Your task to perform on an android device: all mails in gmail Image 0: 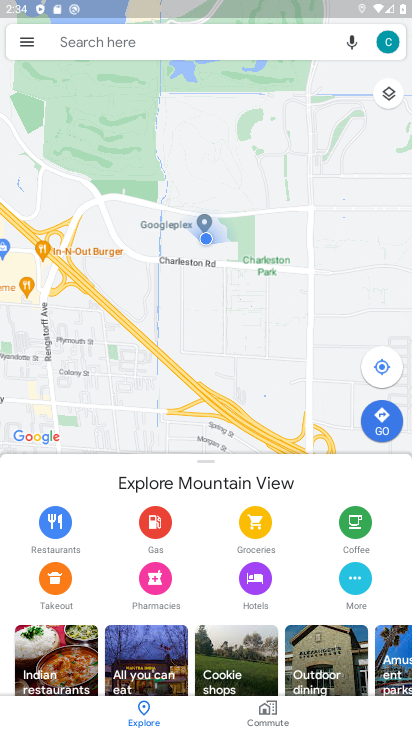
Step 0: press home button
Your task to perform on an android device: all mails in gmail Image 1: 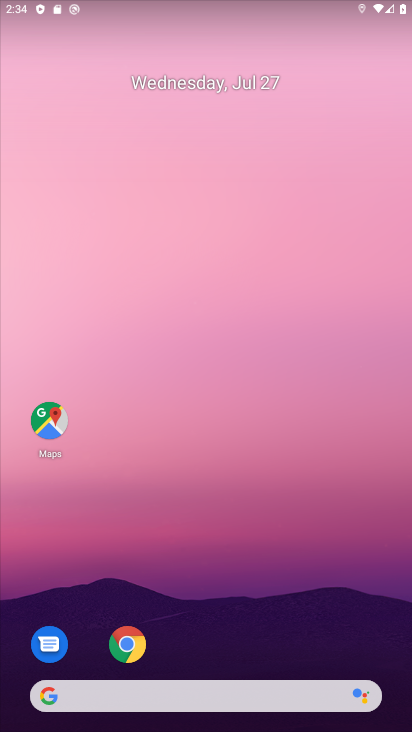
Step 1: drag from (209, 639) to (278, 0)
Your task to perform on an android device: all mails in gmail Image 2: 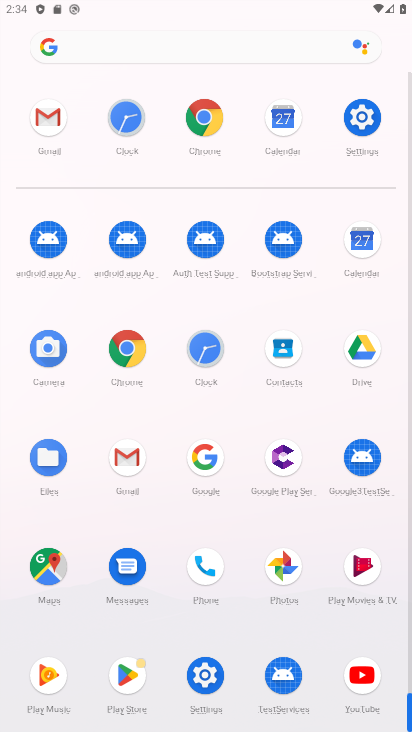
Step 2: click (130, 466)
Your task to perform on an android device: all mails in gmail Image 3: 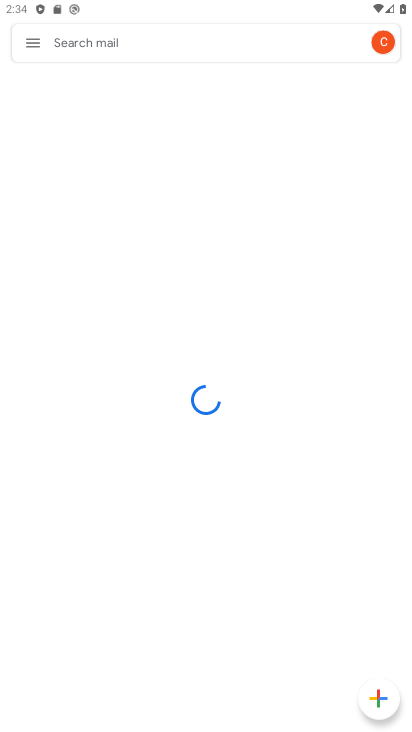
Step 3: click (29, 44)
Your task to perform on an android device: all mails in gmail Image 4: 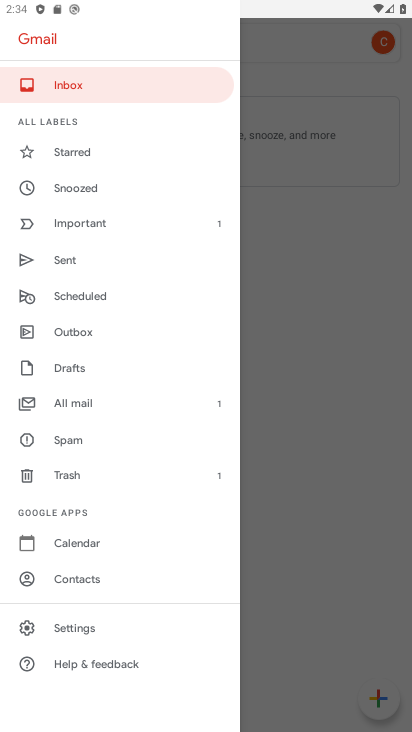
Step 4: click (84, 402)
Your task to perform on an android device: all mails in gmail Image 5: 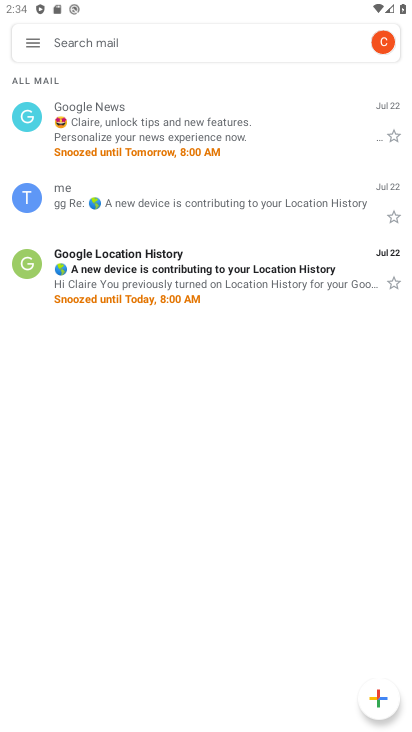
Step 5: task complete